Your task to perform on an android device: turn pop-ups on in chrome Image 0: 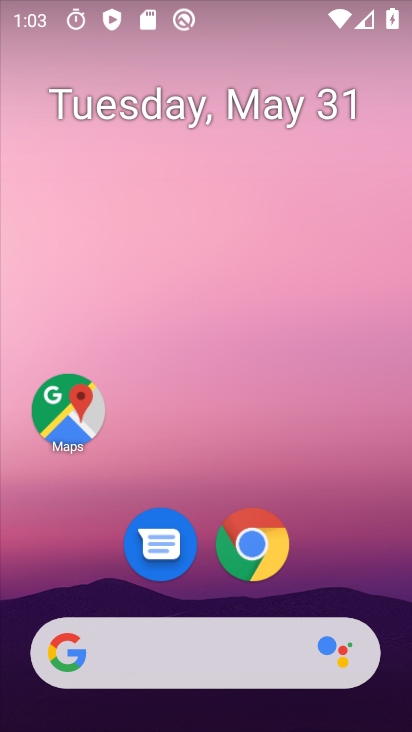
Step 0: click (233, 551)
Your task to perform on an android device: turn pop-ups on in chrome Image 1: 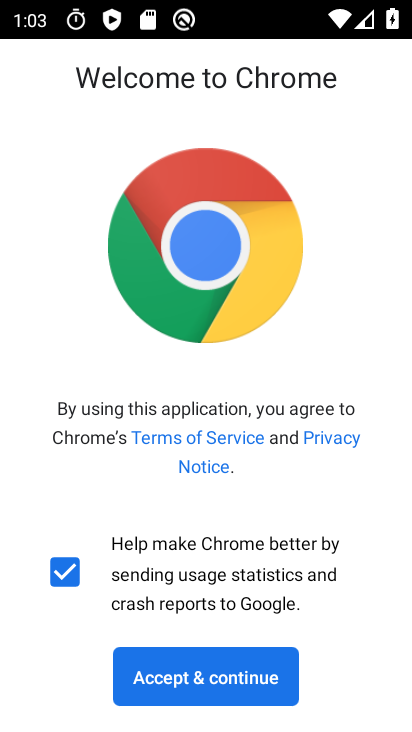
Step 1: click (223, 673)
Your task to perform on an android device: turn pop-ups on in chrome Image 2: 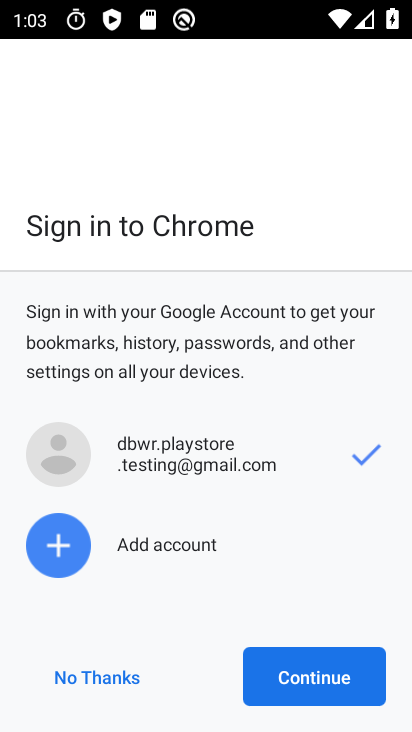
Step 2: click (296, 676)
Your task to perform on an android device: turn pop-ups on in chrome Image 3: 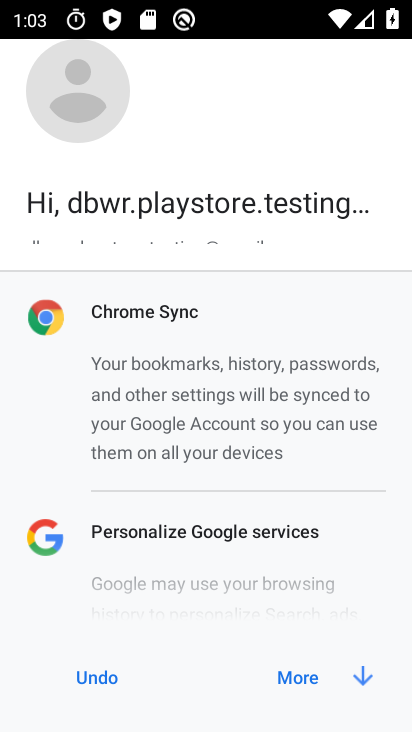
Step 3: click (286, 671)
Your task to perform on an android device: turn pop-ups on in chrome Image 4: 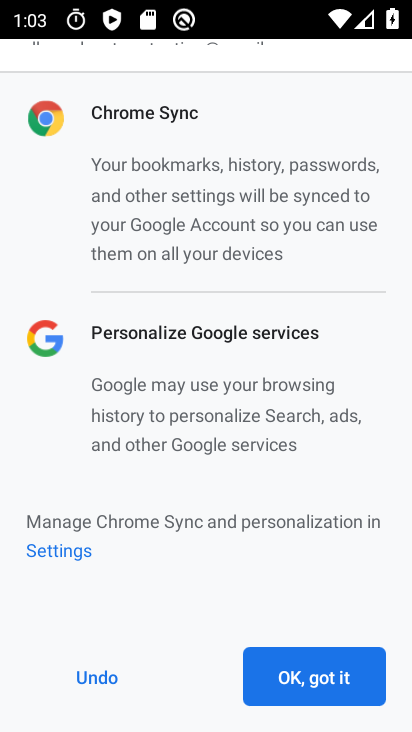
Step 4: click (286, 671)
Your task to perform on an android device: turn pop-ups on in chrome Image 5: 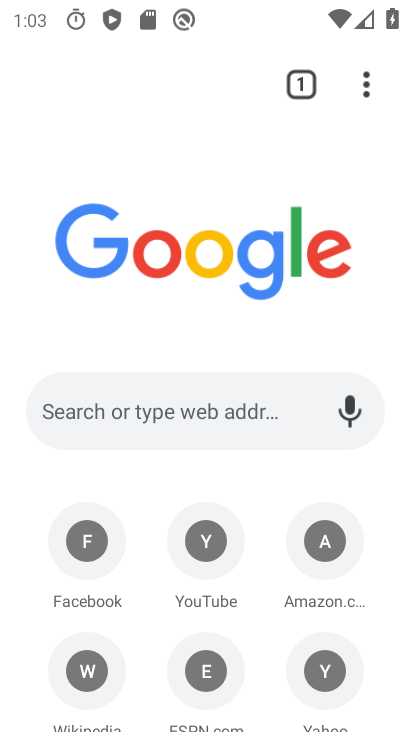
Step 5: click (361, 79)
Your task to perform on an android device: turn pop-ups on in chrome Image 6: 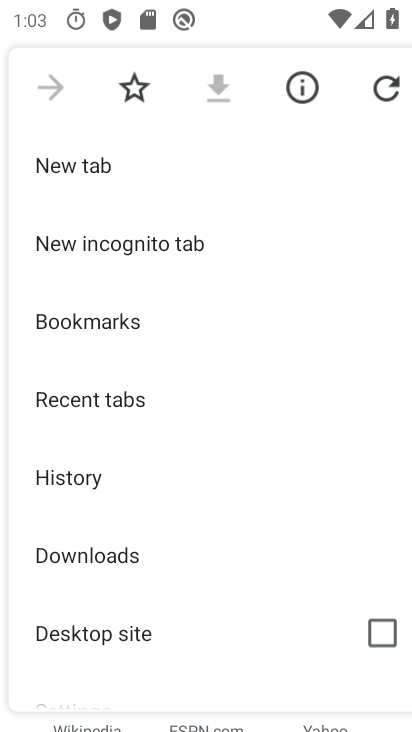
Step 6: drag from (175, 495) to (204, 26)
Your task to perform on an android device: turn pop-ups on in chrome Image 7: 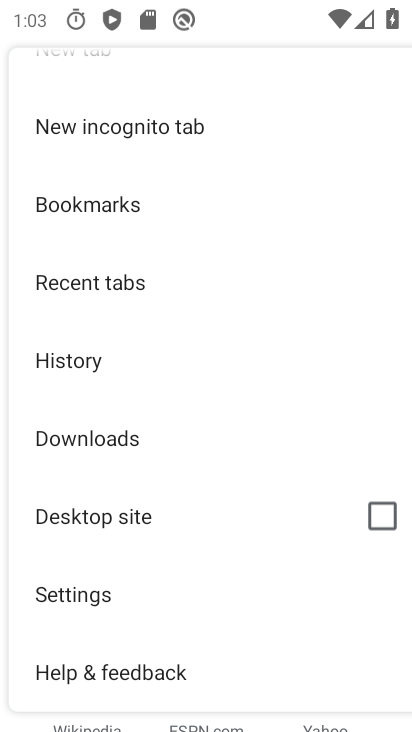
Step 7: click (49, 603)
Your task to perform on an android device: turn pop-ups on in chrome Image 8: 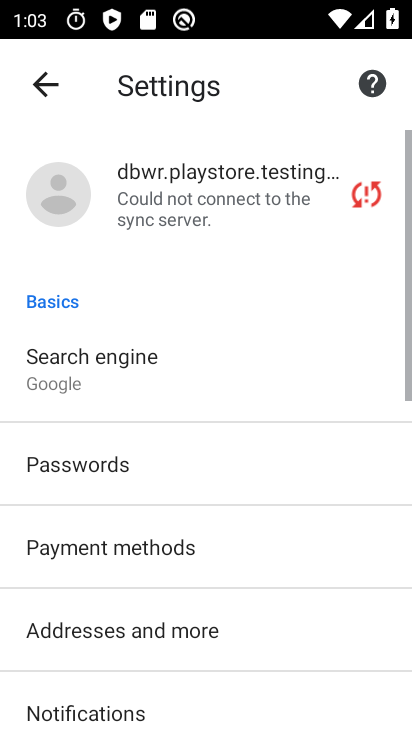
Step 8: drag from (151, 601) to (227, 40)
Your task to perform on an android device: turn pop-ups on in chrome Image 9: 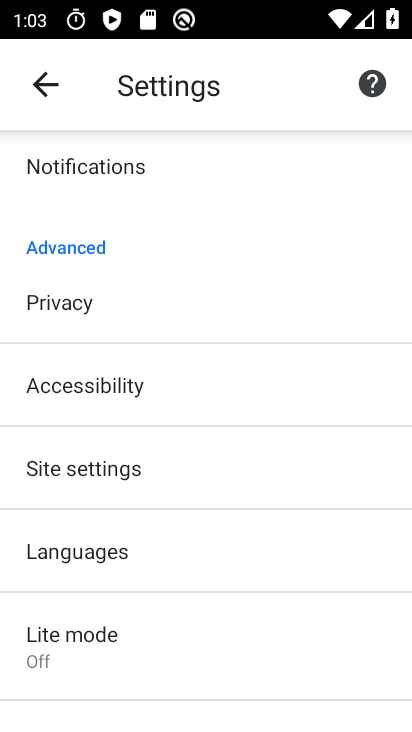
Step 9: drag from (154, 613) to (186, 370)
Your task to perform on an android device: turn pop-ups on in chrome Image 10: 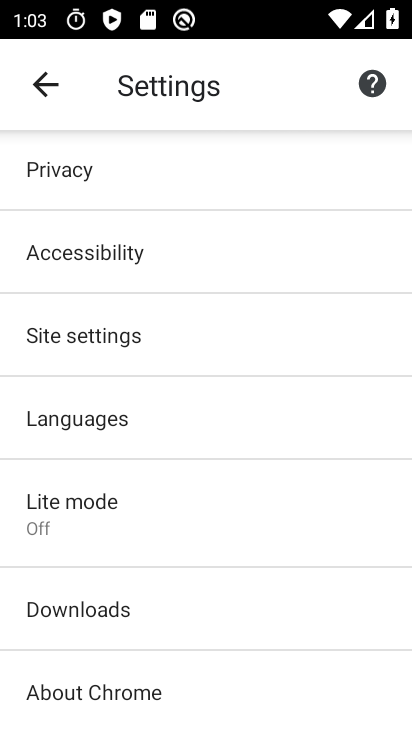
Step 10: click (78, 330)
Your task to perform on an android device: turn pop-ups on in chrome Image 11: 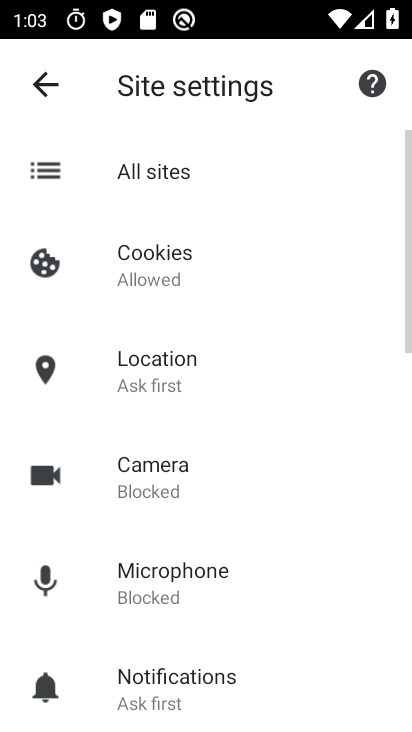
Step 11: drag from (183, 657) to (284, 114)
Your task to perform on an android device: turn pop-ups on in chrome Image 12: 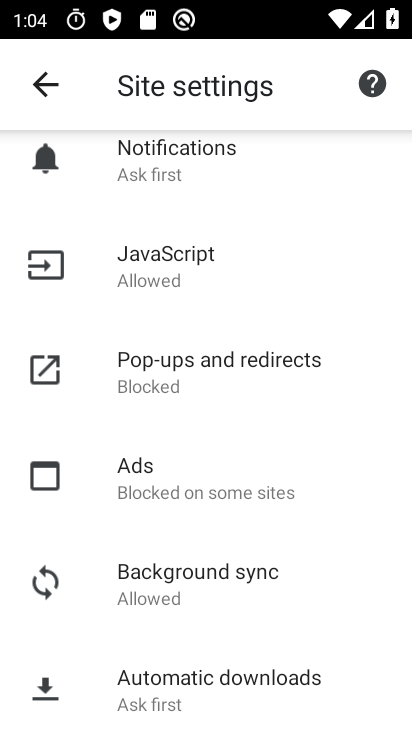
Step 12: click (173, 380)
Your task to perform on an android device: turn pop-ups on in chrome Image 13: 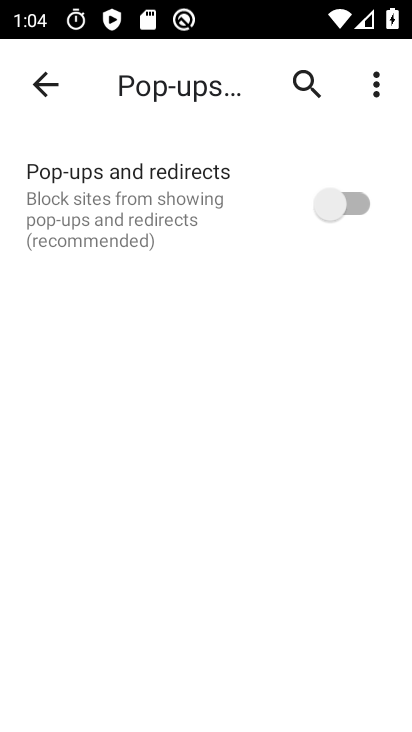
Step 13: click (328, 201)
Your task to perform on an android device: turn pop-ups on in chrome Image 14: 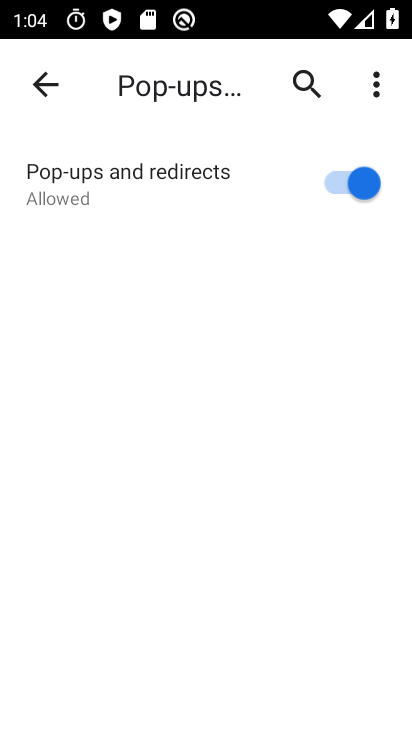
Step 14: task complete